Your task to perform on an android device: Go to display settings Image 0: 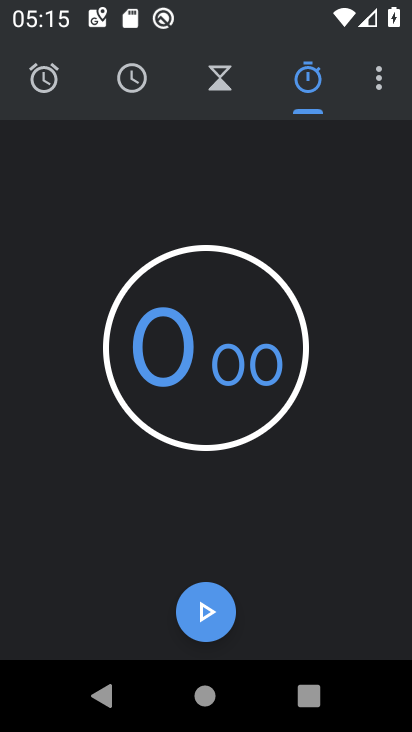
Step 0: press home button
Your task to perform on an android device: Go to display settings Image 1: 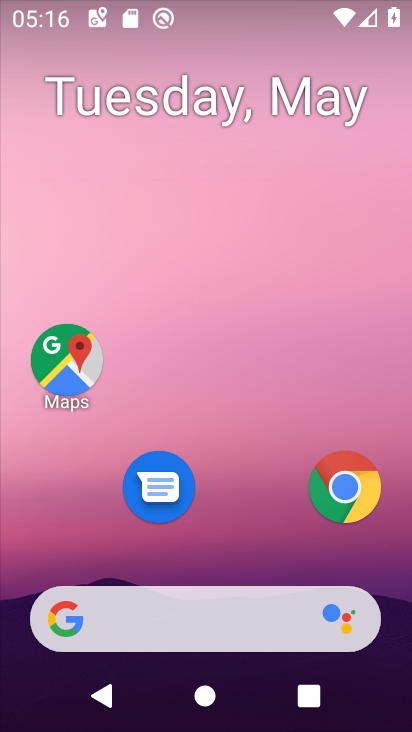
Step 1: drag from (264, 561) to (205, 176)
Your task to perform on an android device: Go to display settings Image 2: 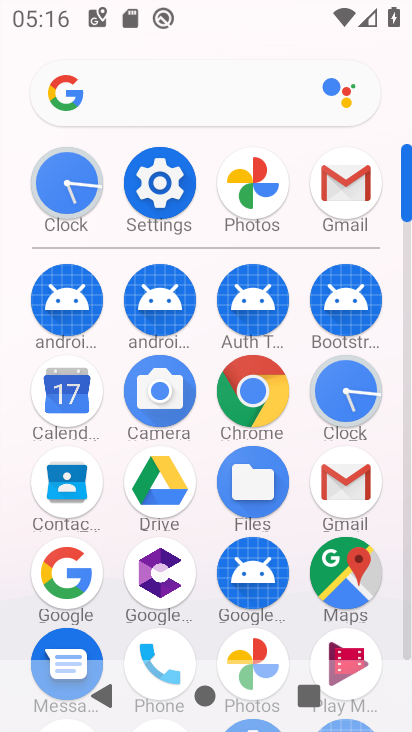
Step 2: click (182, 204)
Your task to perform on an android device: Go to display settings Image 3: 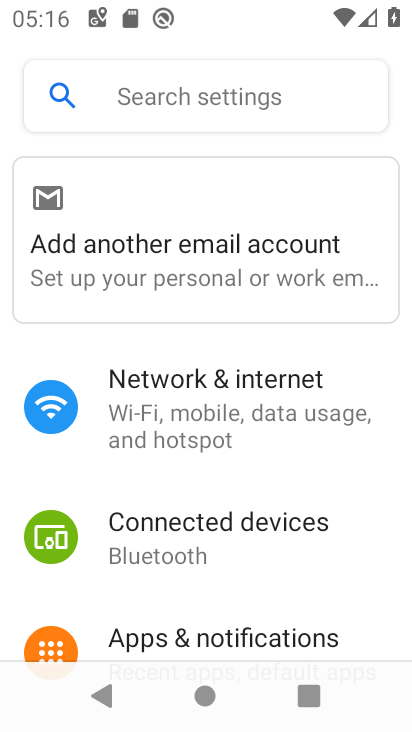
Step 3: drag from (221, 492) to (168, 207)
Your task to perform on an android device: Go to display settings Image 4: 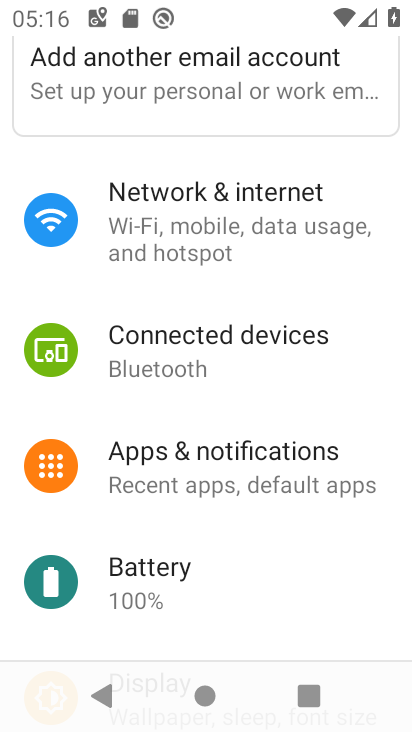
Step 4: drag from (220, 544) to (121, 151)
Your task to perform on an android device: Go to display settings Image 5: 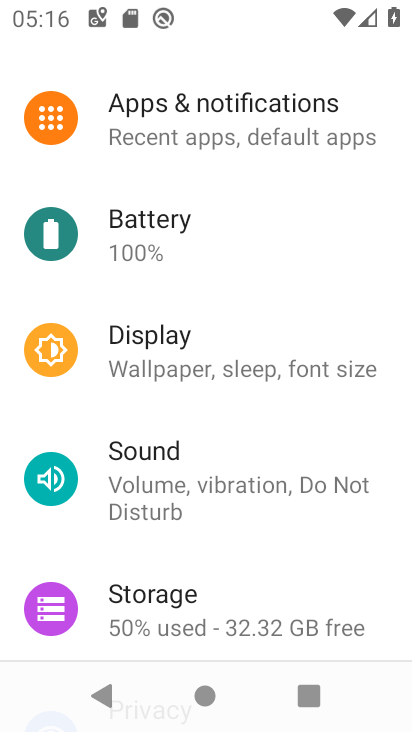
Step 5: drag from (181, 540) to (153, 344)
Your task to perform on an android device: Go to display settings Image 6: 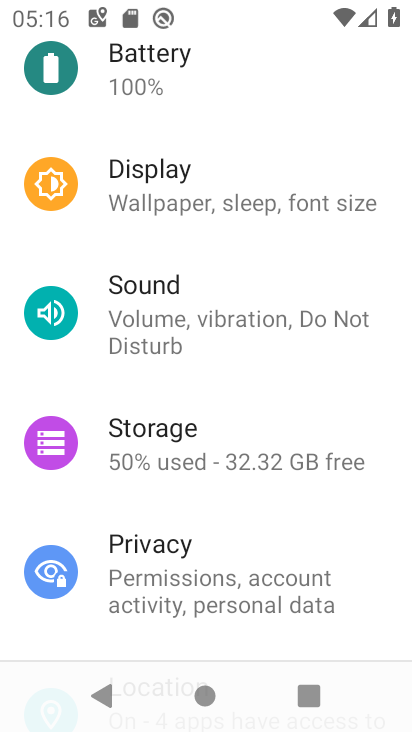
Step 6: click (136, 167)
Your task to perform on an android device: Go to display settings Image 7: 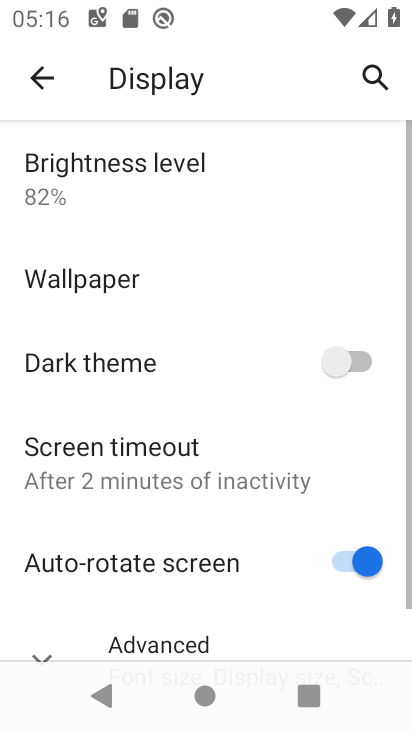
Step 7: task complete